Your task to perform on an android device: Play the last video I watched on Youtube Image 0: 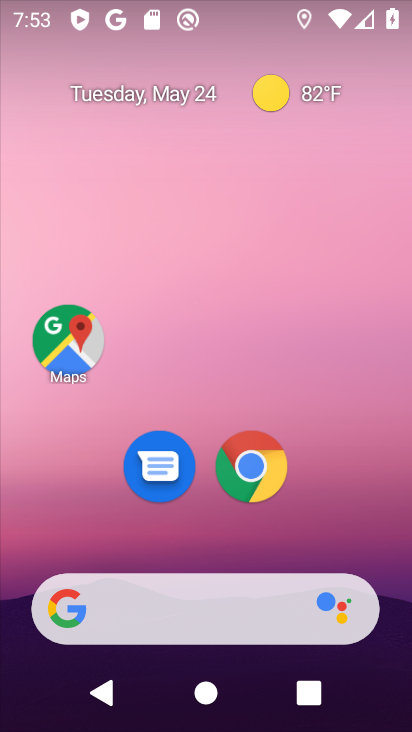
Step 0: drag from (200, 549) to (219, 75)
Your task to perform on an android device: Play the last video I watched on Youtube Image 1: 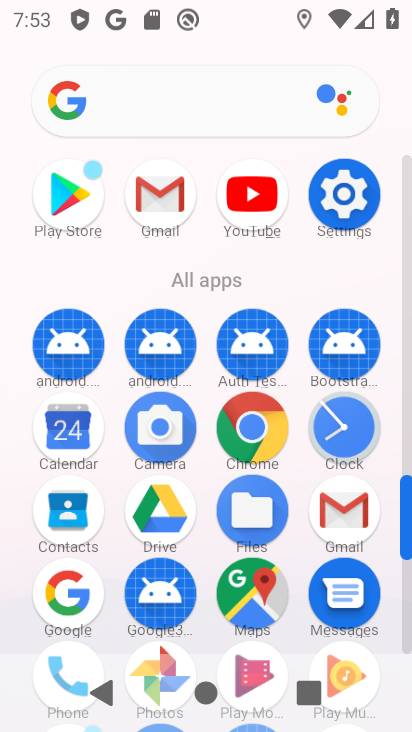
Step 1: click (246, 188)
Your task to perform on an android device: Play the last video I watched on Youtube Image 2: 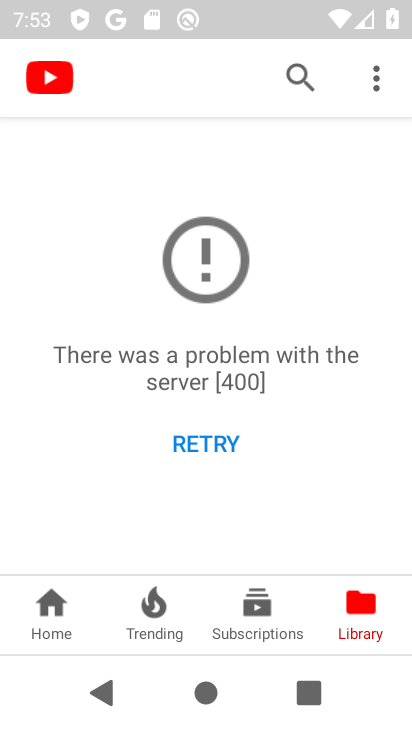
Step 2: task complete